Your task to perform on an android device: toggle wifi Image 0: 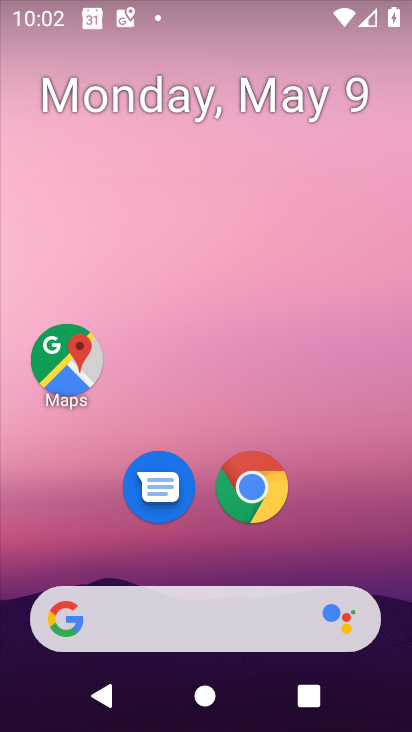
Step 0: drag from (358, 513) to (273, 29)
Your task to perform on an android device: toggle wifi Image 1: 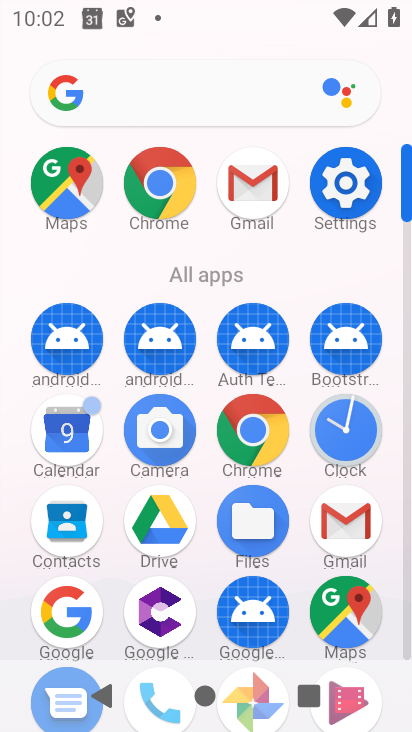
Step 1: click (343, 186)
Your task to perform on an android device: toggle wifi Image 2: 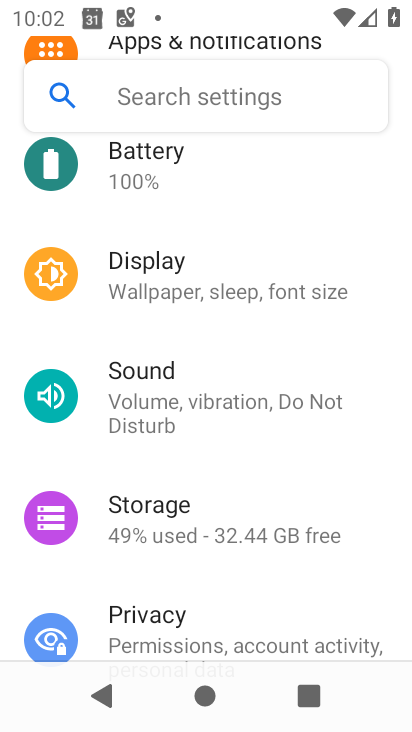
Step 2: drag from (333, 187) to (308, 562)
Your task to perform on an android device: toggle wifi Image 3: 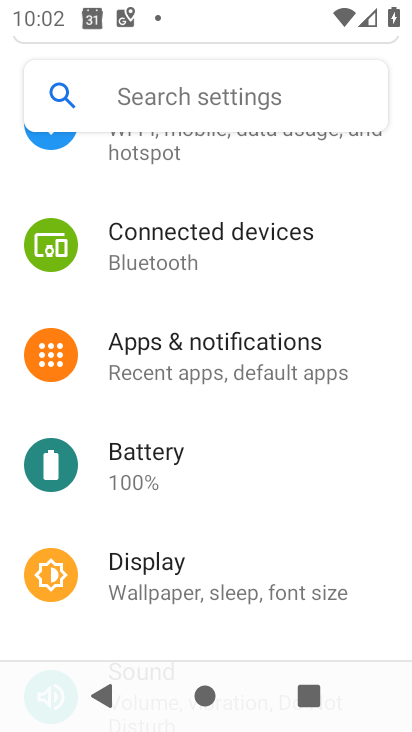
Step 3: drag from (286, 223) to (291, 533)
Your task to perform on an android device: toggle wifi Image 4: 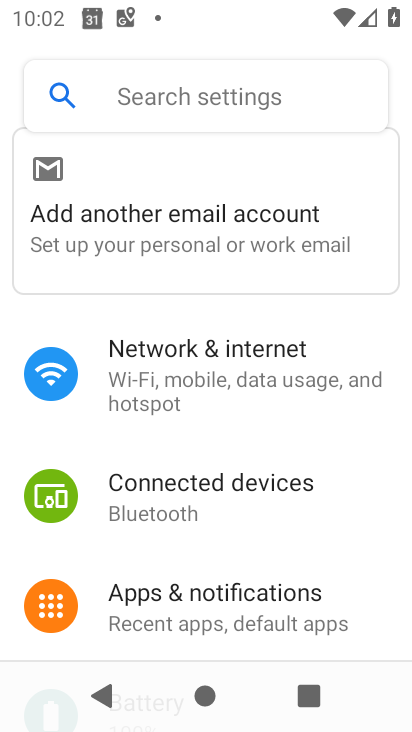
Step 4: click (245, 380)
Your task to perform on an android device: toggle wifi Image 5: 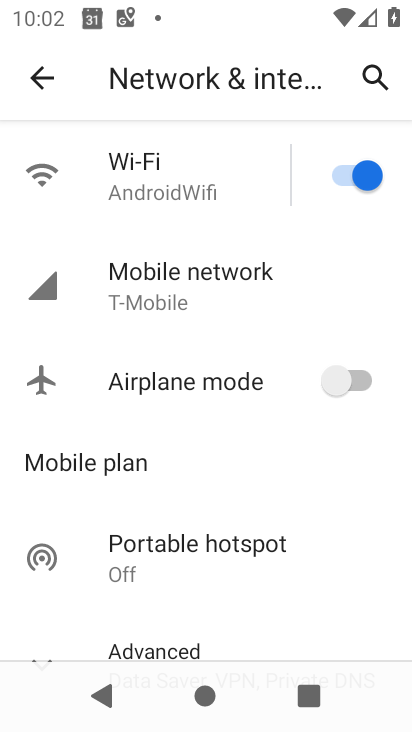
Step 5: click (332, 176)
Your task to perform on an android device: toggle wifi Image 6: 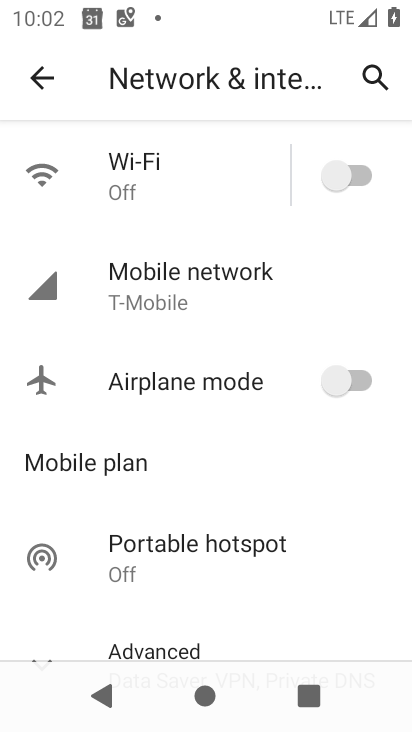
Step 6: task complete